Your task to perform on an android device: See recent photos Image 0: 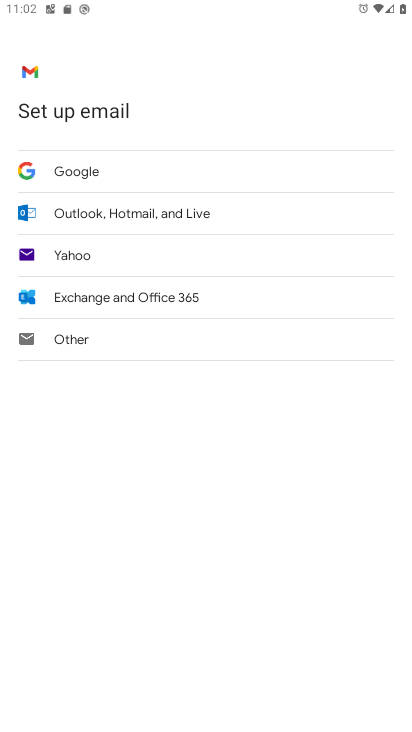
Step 0: task complete